Your task to perform on an android device: open a bookmark in the chrome app Image 0: 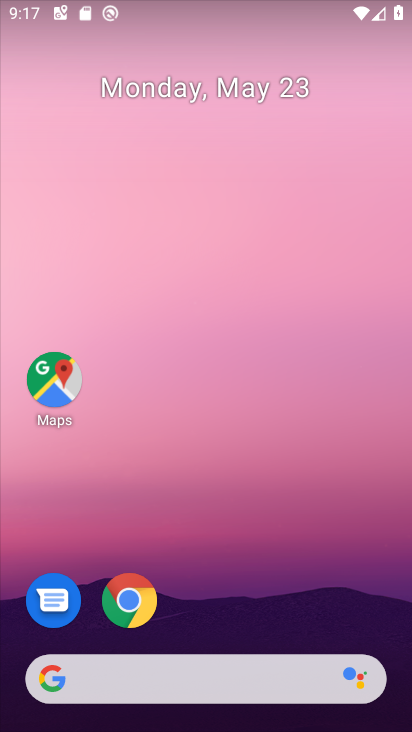
Step 0: click (127, 606)
Your task to perform on an android device: open a bookmark in the chrome app Image 1: 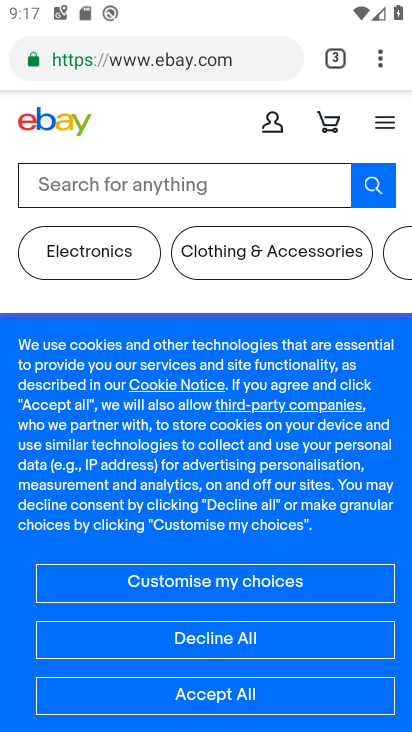
Step 1: click (382, 66)
Your task to perform on an android device: open a bookmark in the chrome app Image 2: 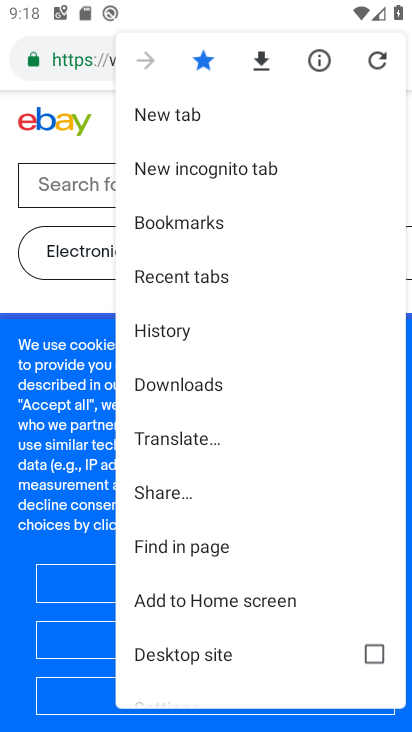
Step 2: click (187, 223)
Your task to perform on an android device: open a bookmark in the chrome app Image 3: 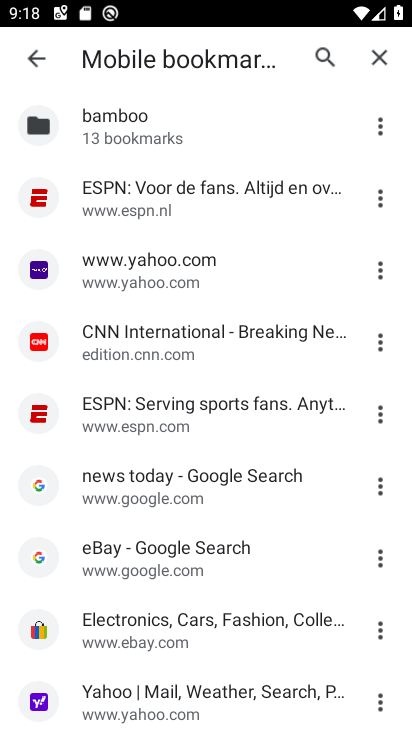
Step 3: click (126, 182)
Your task to perform on an android device: open a bookmark in the chrome app Image 4: 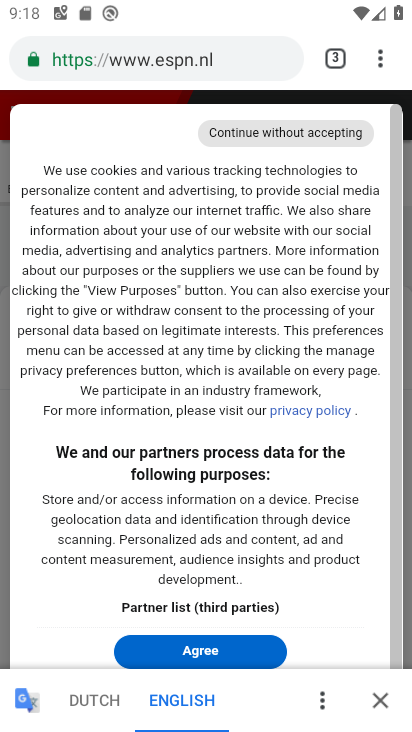
Step 4: click (182, 658)
Your task to perform on an android device: open a bookmark in the chrome app Image 5: 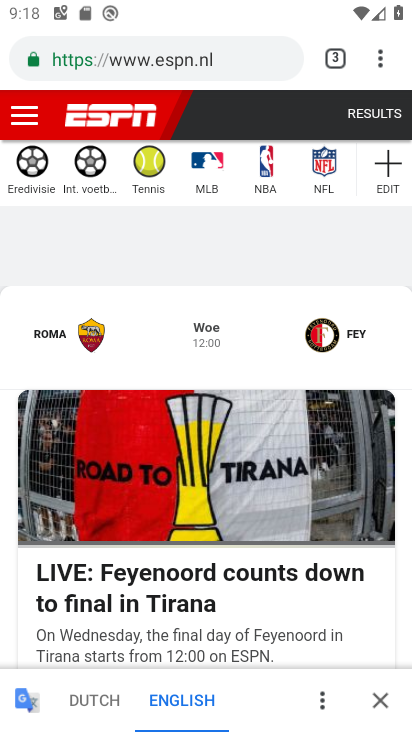
Step 5: task complete